Your task to perform on an android device: change notification settings in the gmail app Image 0: 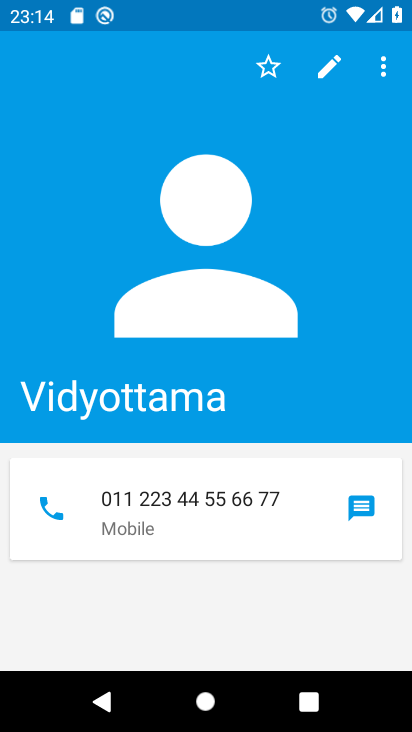
Step 0: press home button
Your task to perform on an android device: change notification settings in the gmail app Image 1: 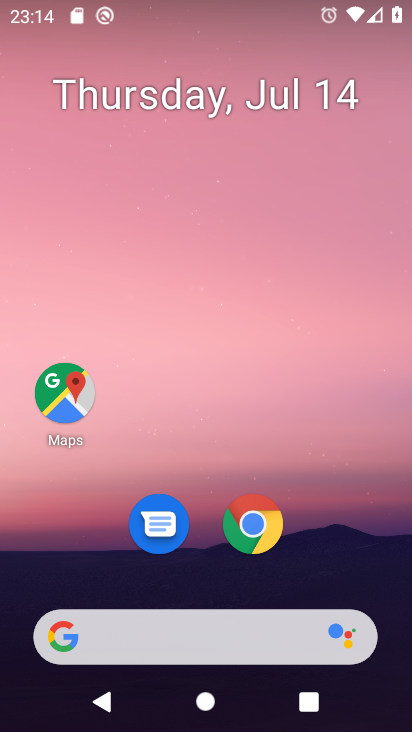
Step 1: drag from (341, 560) to (337, 36)
Your task to perform on an android device: change notification settings in the gmail app Image 2: 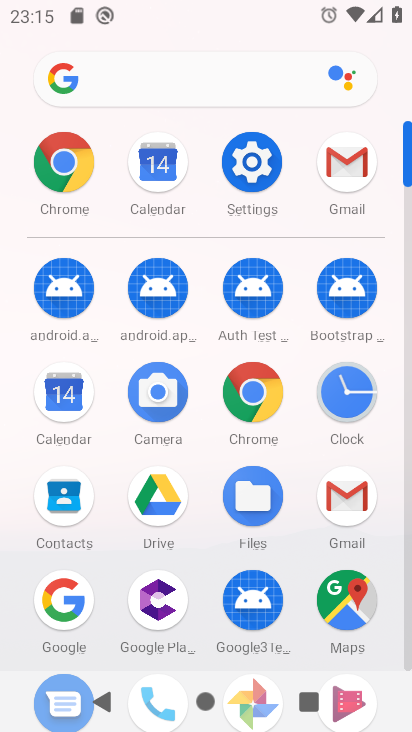
Step 2: click (338, 171)
Your task to perform on an android device: change notification settings in the gmail app Image 3: 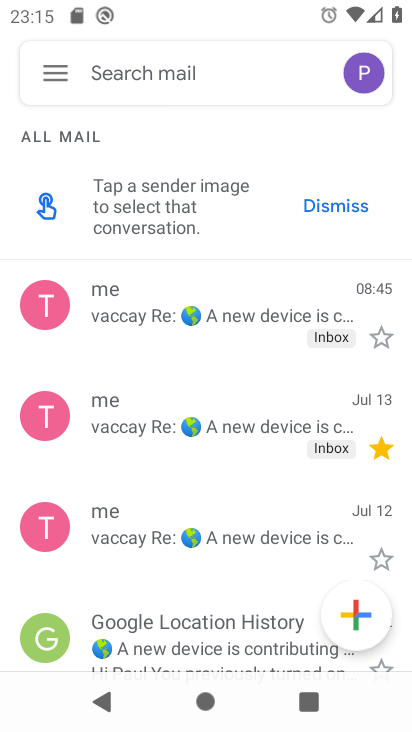
Step 3: click (58, 78)
Your task to perform on an android device: change notification settings in the gmail app Image 4: 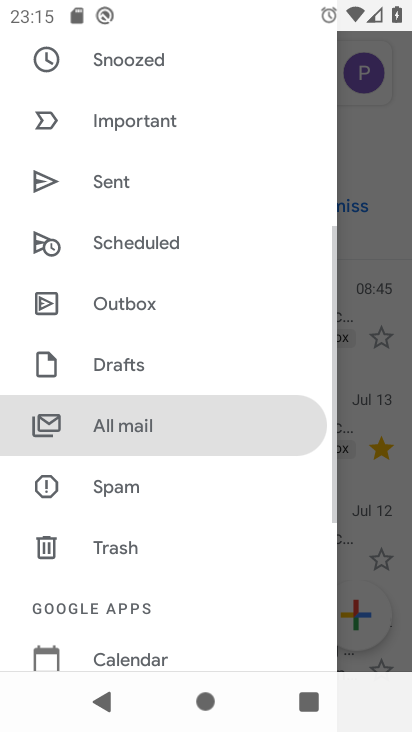
Step 4: drag from (160, 493) to (222, 116)
Your task to perform on an android device: change notification settings in the gmail app Image 5: 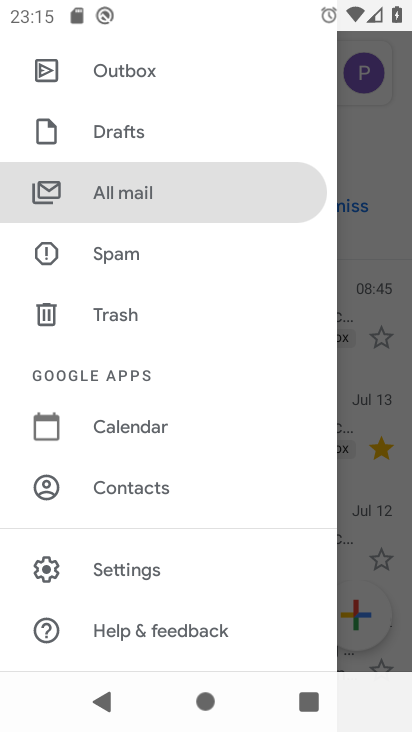
Step 5: click (148, 559)
Your task to perform on an android device: change notification settings in the gmail app Image 6: 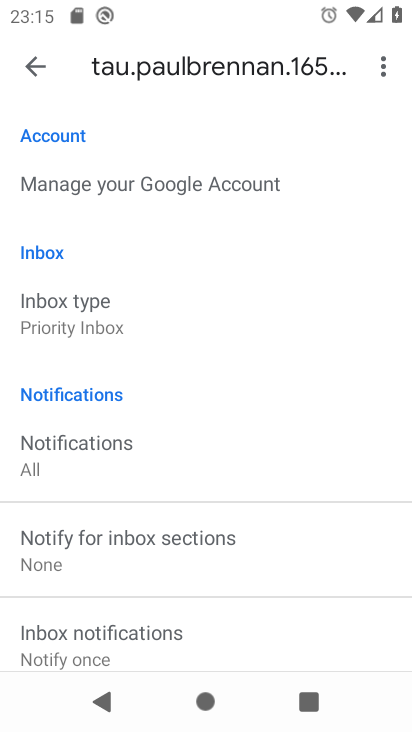
Step 6: drag from (215, 562) to (238, 292)
Your task to perform on an android device: change notification settings in the gmail app Image 7: 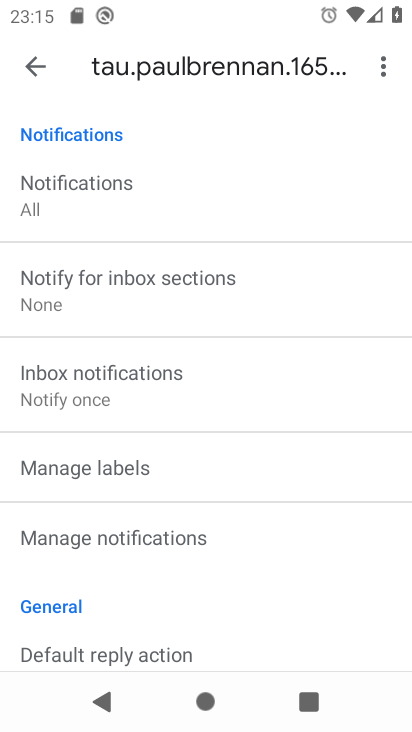
Step 7: click (223, 533)
Your task to perform on an android device: change notification settings in the gmail app Image 8: 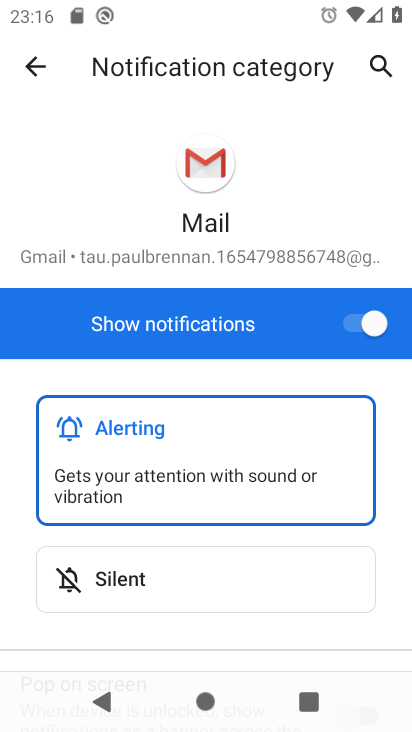
Step 8: task complete